Your task to perform on an android device: change timer sound Image 0: 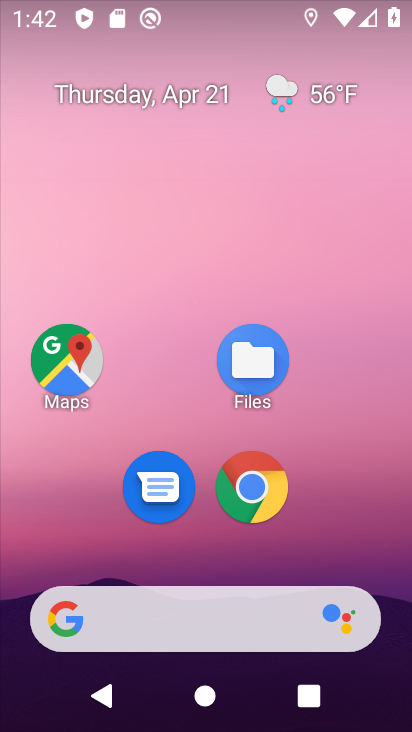
Step 0: drag from (370, 519) to (375, 173)
Your task to perform on an android device: change timer sound Image 1: 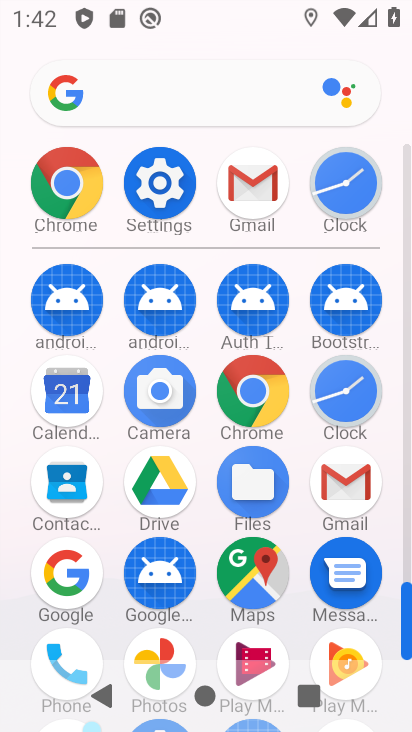
Step 1: click (358, 390)
Your task to perform on an android device: change timer sound Image 2: 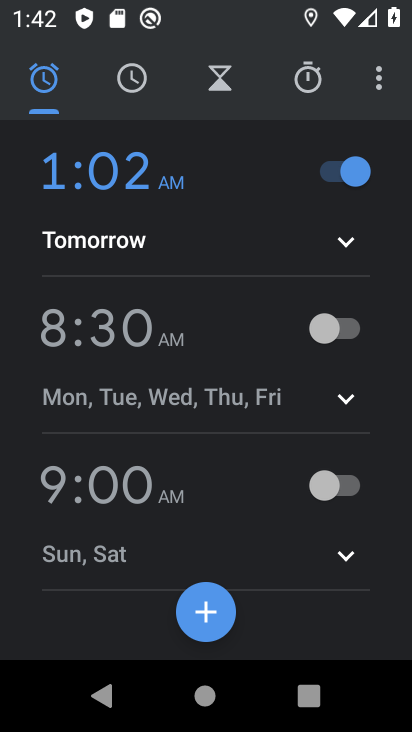
Step 2: click (368, 89)
Your task to perform on an android device: change timer sound Image 3: 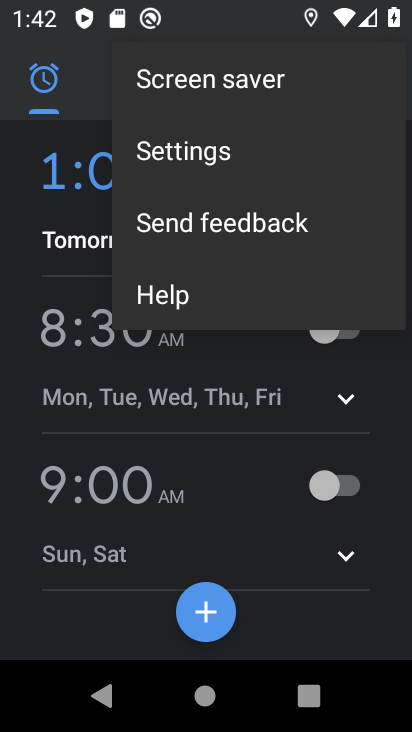
Step 3: click (192, 144)
Your task to perform on an android device: change timer sound Image 4: 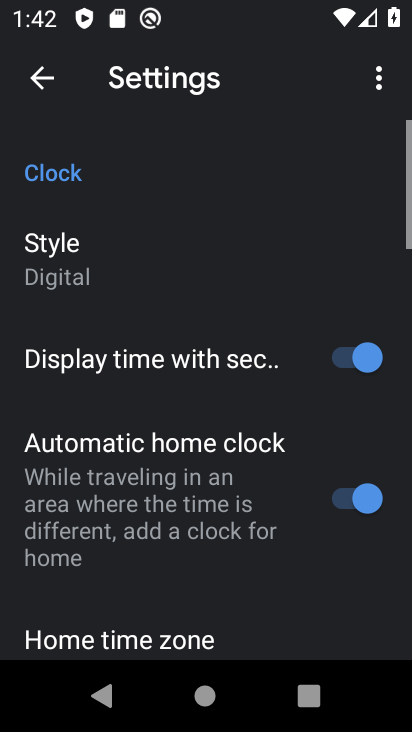
Step 4: drag from (223, 455) to (223, 260)
Your task to perform on an android device: change timer sound Image 5: 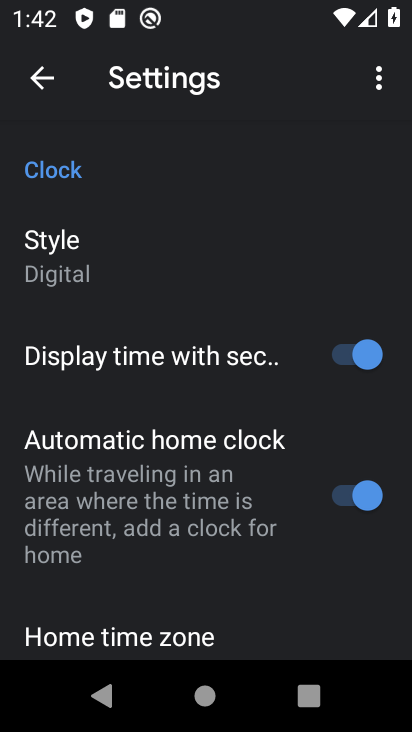
Step 5: drag from (239, 414) to (260, 247)
Your task to perform on an android device: change timer sound Image 6: 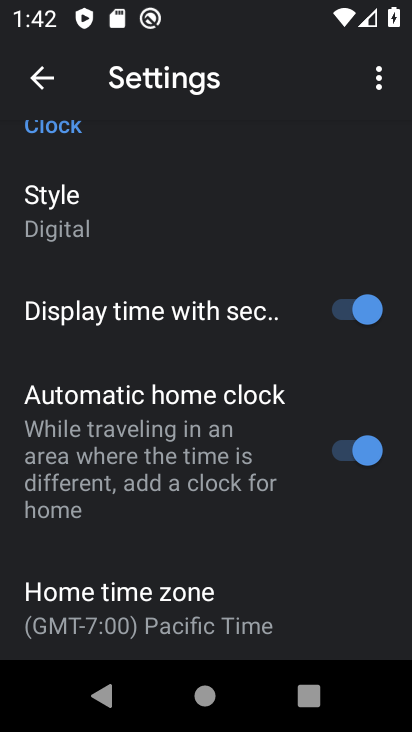
Step 6: drag from (235, 573) to (272, 237)
Your task to perform on an android device: change timer sound Image 7: 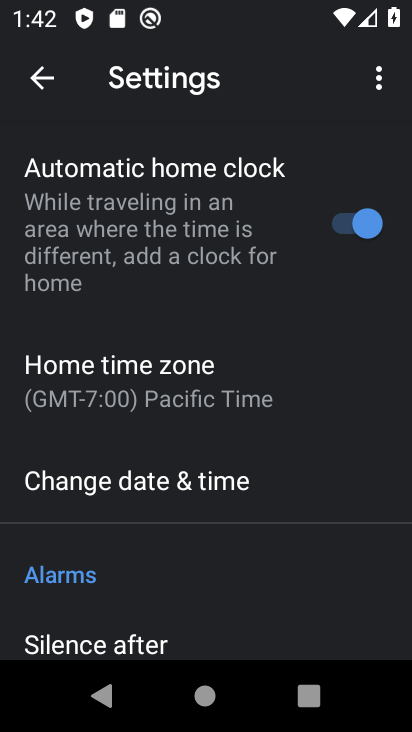
Step 7: drag from (247, 552) to (268, 201)
Your task to perform on an android device: change timer sound Image 8: 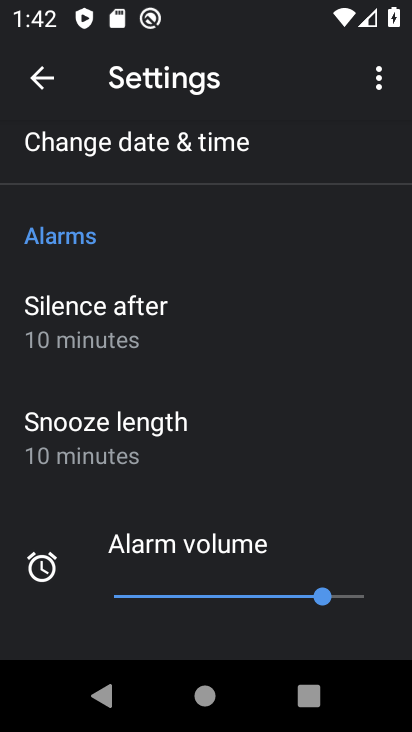
Step 8: drag from (300, 487) to (320, 71)
Your task to perform on an android device: change timer sound Image 9: 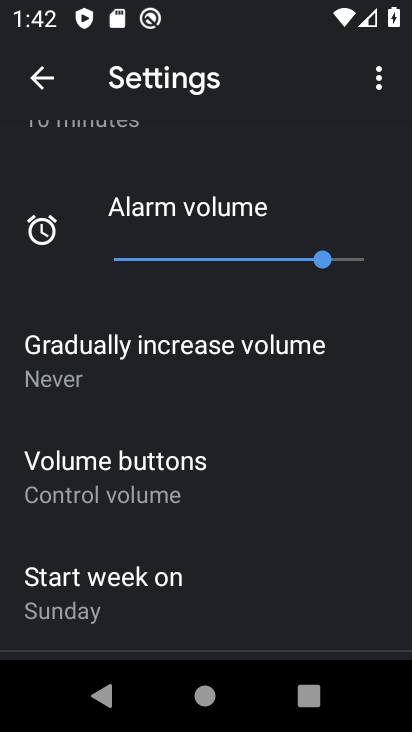
Step 9: drag from (232, 518) to (289, 221)
Your task to perform on an android device: change timer sound Image 10: 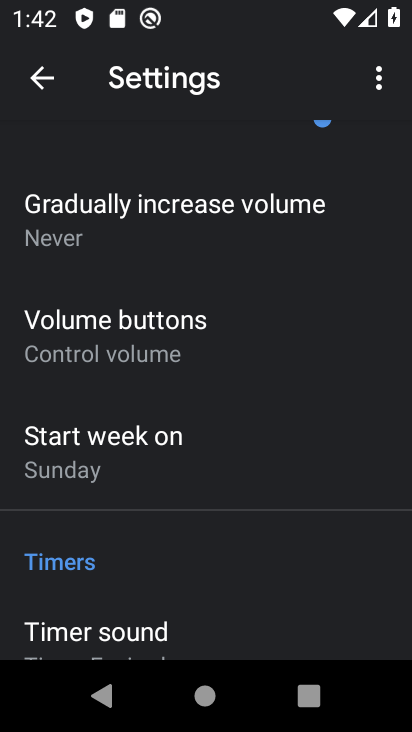
Step 10: drag from (238, 596) to (250, 308)
Your task to perform on an android device: change timer sound Image 11: 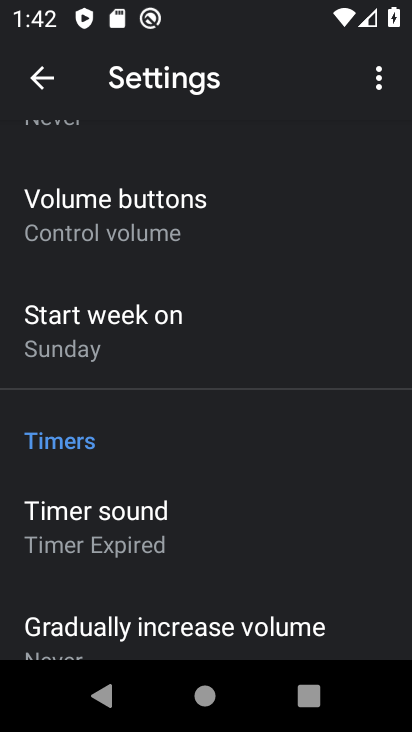
Step 11: click (163, 514)
Your task to perform on an android device: change timer sound Image 12: 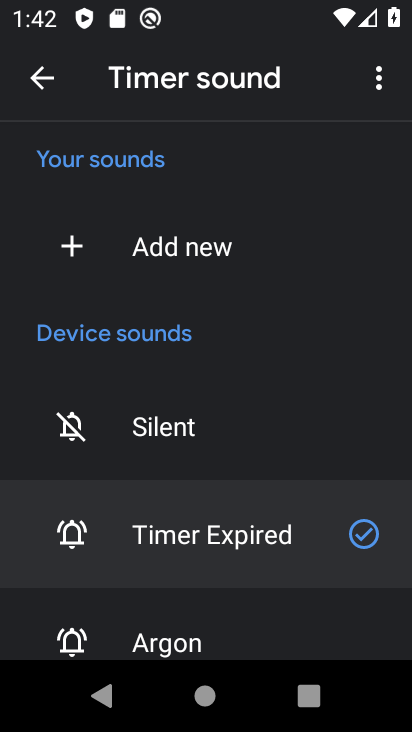
Step 12: click (198, 637)
Your task to perform on an android device: change timer sound Image 13: 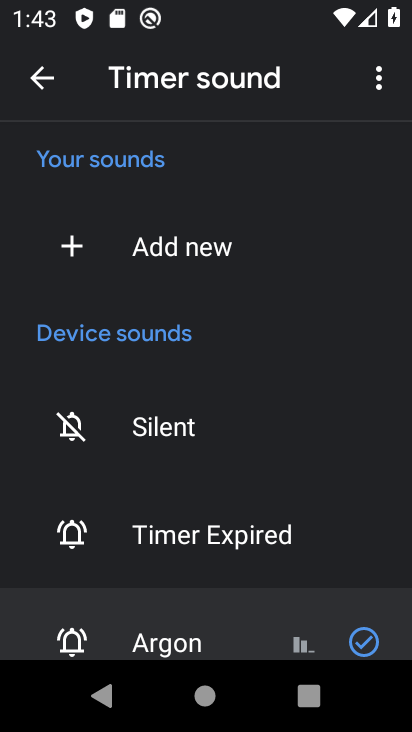
Step 13: task complete